Your task to perform on an android device: turn off location history Image 0: 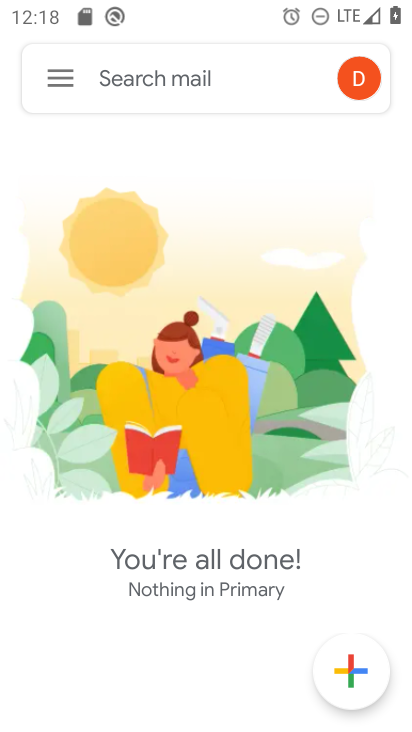
Step 0: press home button
Your task to perform on an android device: turn off location history Image 1: 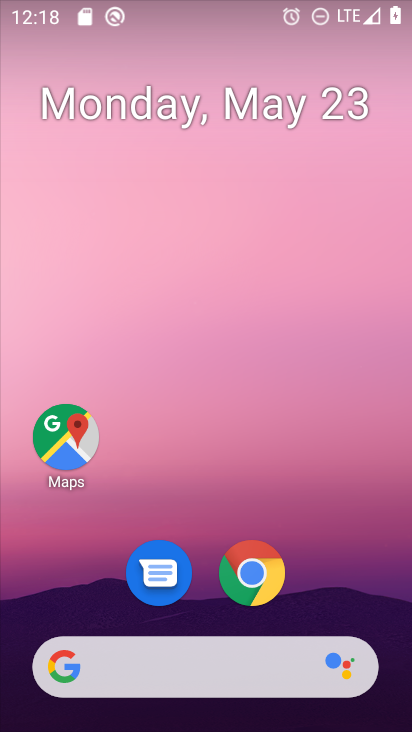
Step 1: drag from (305, 597) to (210, 83)
Your task to perform on an android device: turn off location history Image 2: 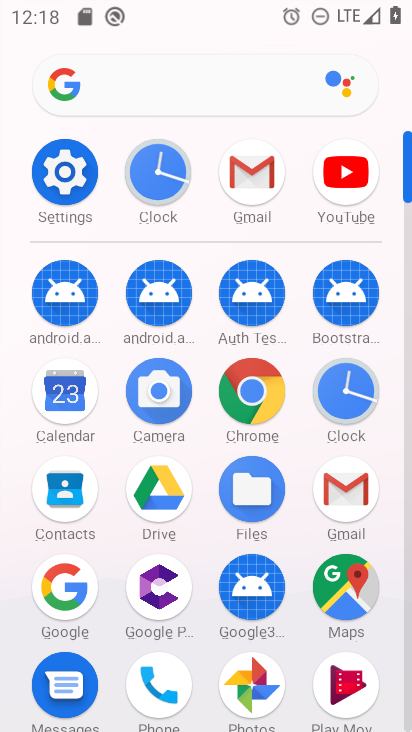
Step 2: click (57, 164)
Your task to perform on an android device: turn off location history Image 3: 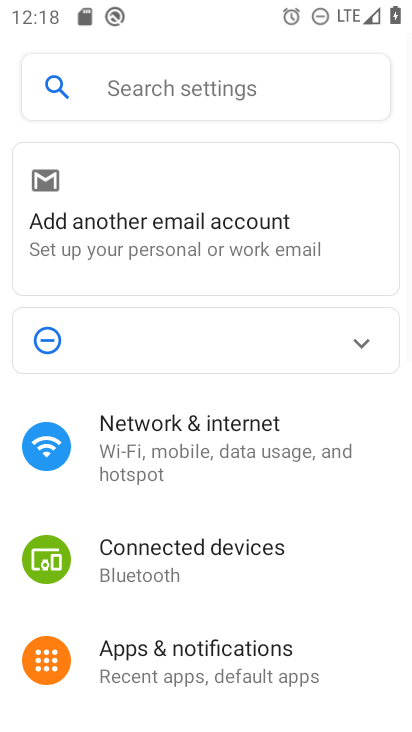
Step 3: drag from (165, 604) to (165, 391)
Your task to perform on an android device: turn off location history Image 4: 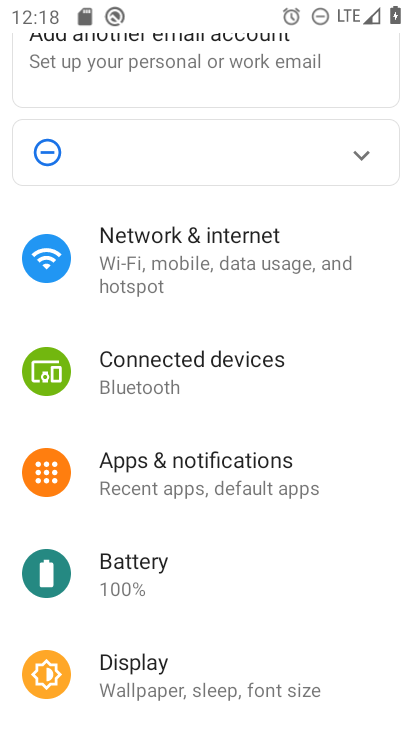
Step 4: drag from (174, 618) to (157, 383)
Your task to perform on an android device: turn off location history Image 5: 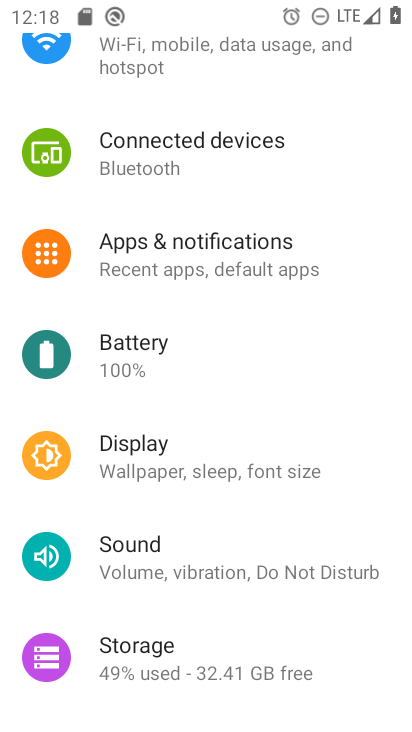
Step 5: drag from (155, 660) to (158, 388)
Your task to perform on an android device: turn off location history Image 6: 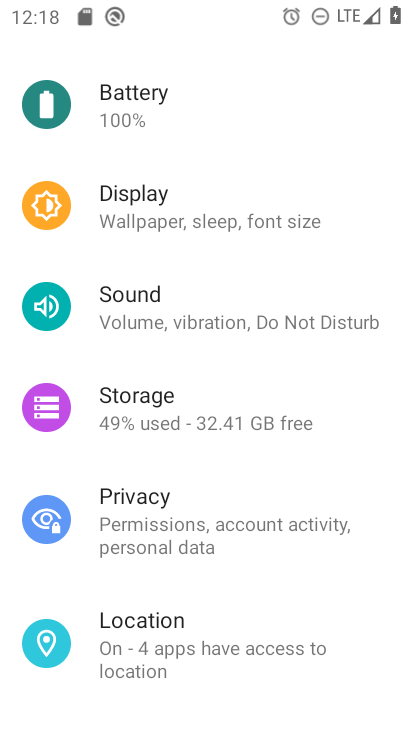
Step 6: click (165, 652)
Your task to perform on an android device: turn off location history Image 7: 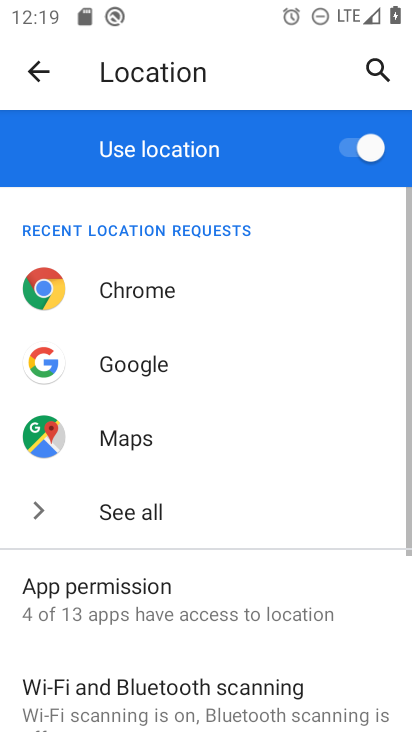
Step 7: drag from (177, 679) to (214, 342)
Your task to perform on an android device: turn off location history Image 8: 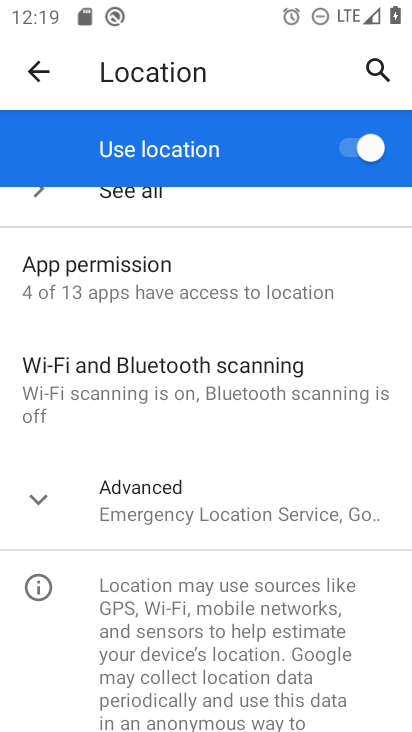
Step 8: click (197, 518)
Your task to perform on an android device: turn off location history Image 9: 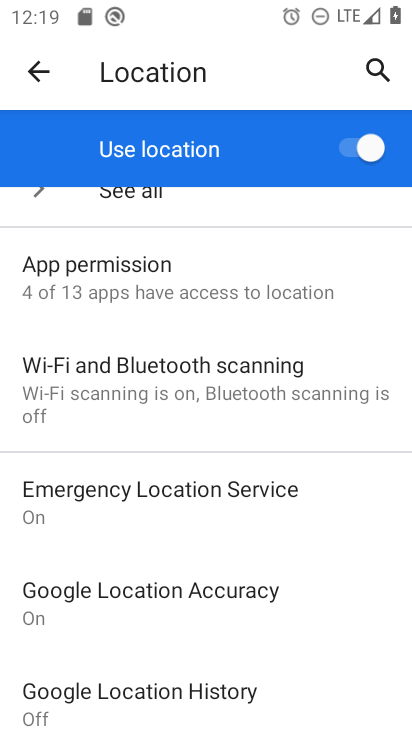
Step 9: click (164, 680)
Your task to perform on an android device: turn off location history Image 10: 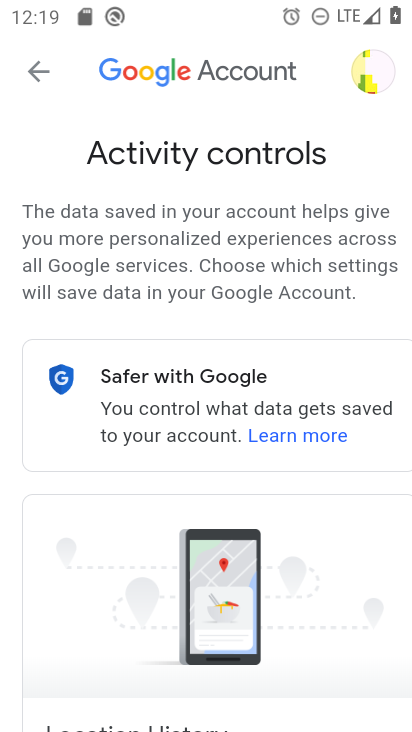
Step 10: drag from (107, 644) to (100, 197)
Your task to perform on an android device: turn off location history Image 11: 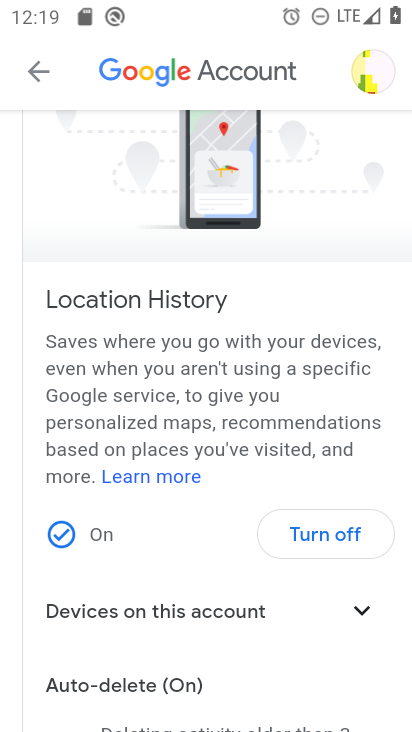
Step 11: click (329, 524)
Your task to perform on an android device: turn off location history Image 12: 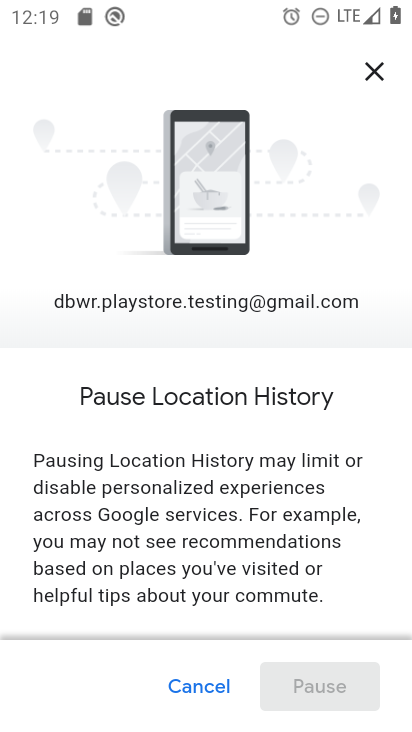
Step 12: drag from (267, 567) to (269, 82)
Your task to perform on an android device: turn off location history Image 13: 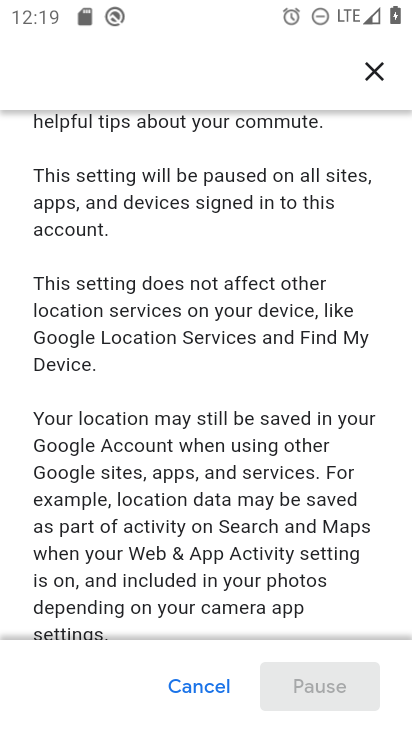
Step 13: drag from (243, 534) to (245, 140)
Your task to perform on an android device: turn off location history Image 14: 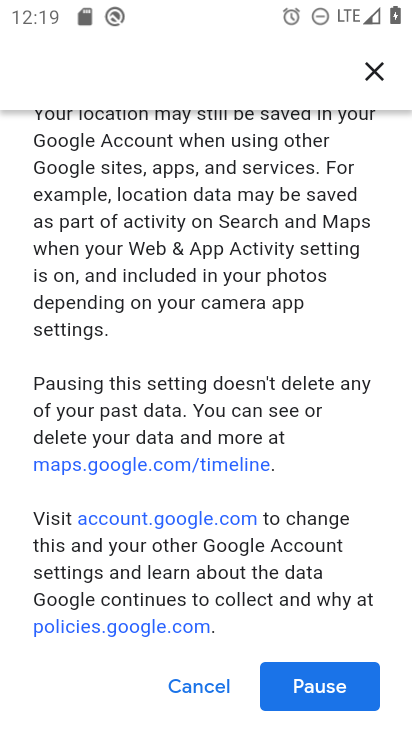
Step 14: click (293, 685)
Your task to perform on an android device: turn off location history Image 15: 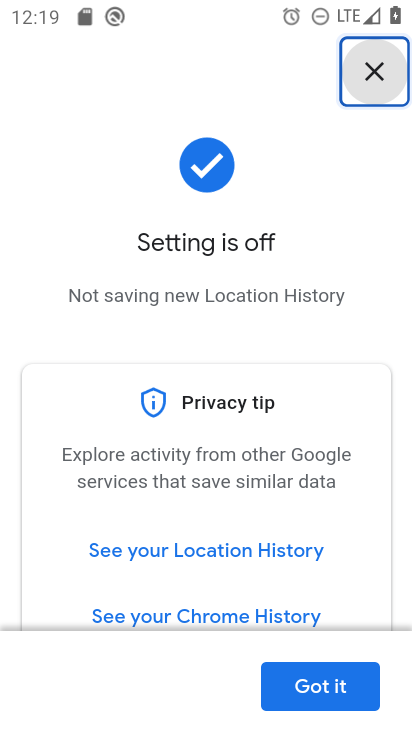
Step 15: task complete